Your task to perform on an android device: Show me popular games on the Play Store Image 0: 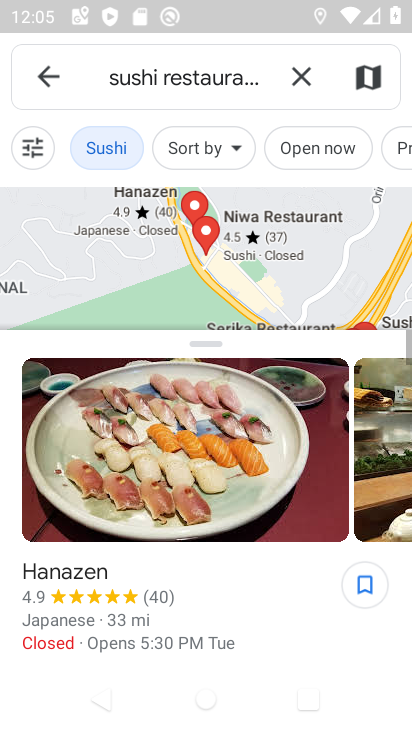
Step 0: click (399, 607)
Your task to perform on an android device: Show me popular games on the Play Store Image 1: 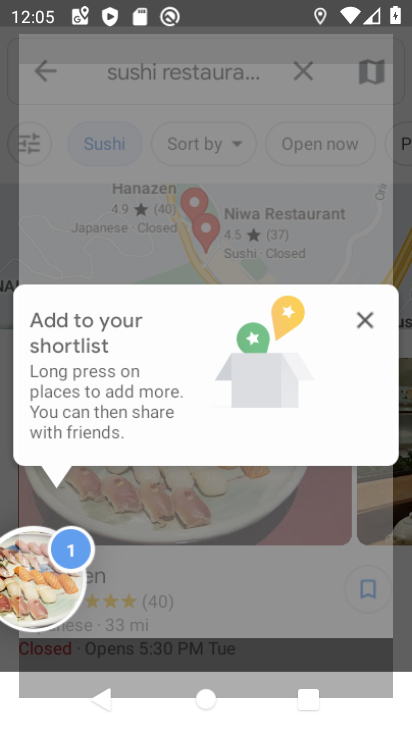
Step 1: press home button
Your task to perform on an android device: Show me popular games on the Play Store Image 2: 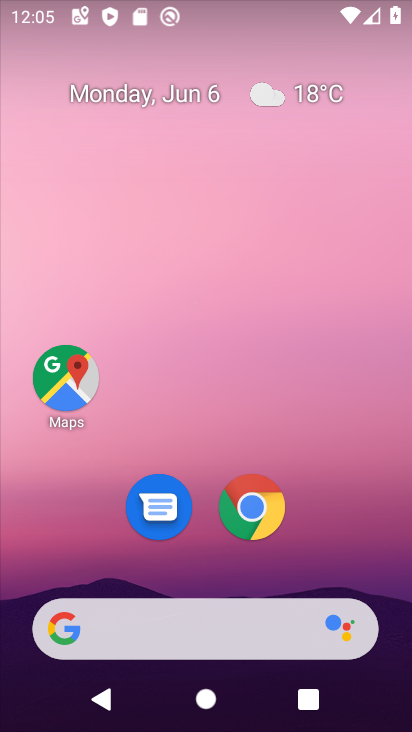
Step 2: drag from (396, 594) to (287, 162)
Your task to perform on an android device: Show me popular games on the Play Store Image 3: 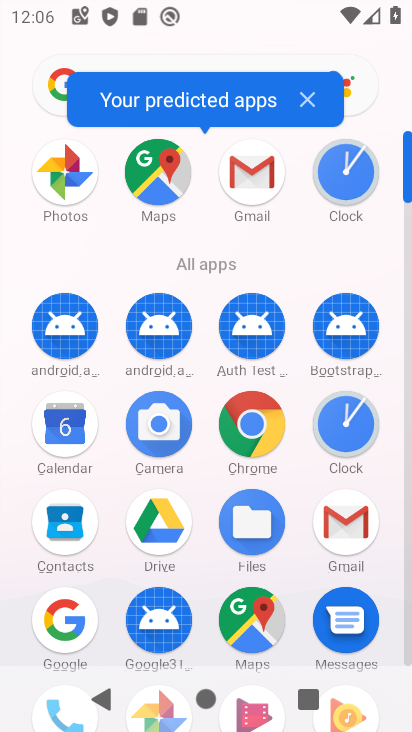
Step 3: click (408, 653)
Your task to perform on an android device: Show me popular games on the Play Store Image 4: 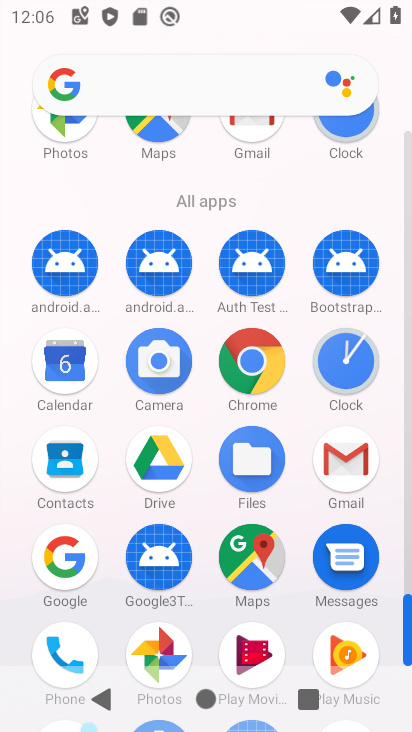
Step 4: drag from (397, 579) to (386, 410)
Your task to perform on an android device: Show me popular games on the Play Store Image 5: 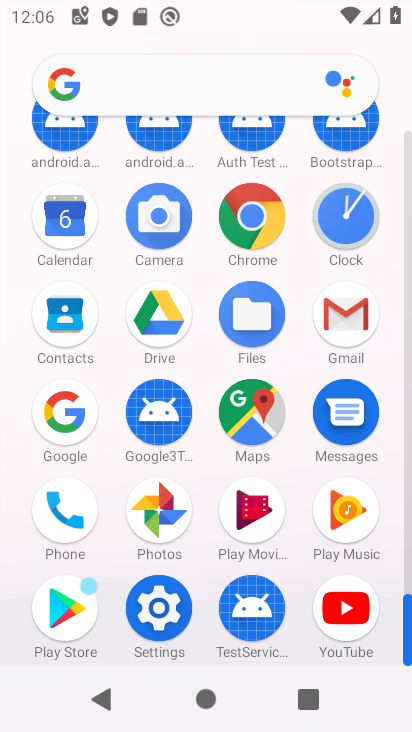
Step 5: click (67, 628)
Your task to perform on an android device: Show me popular games on the Play Store Image 6: 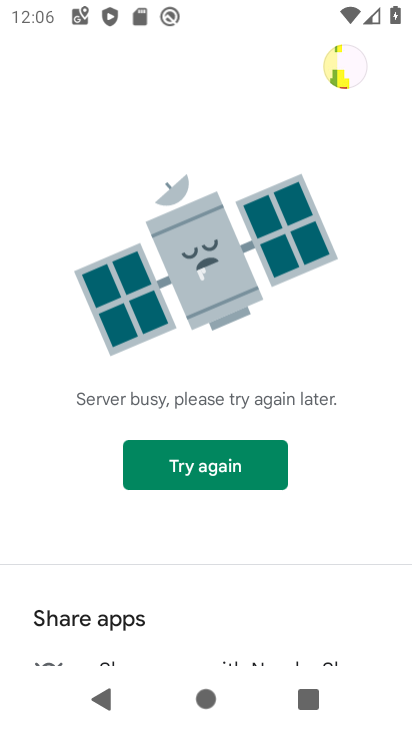
Step 6: task complete